Your task to perform on an android device: Set the phone to "Do not disturb". Image 0: 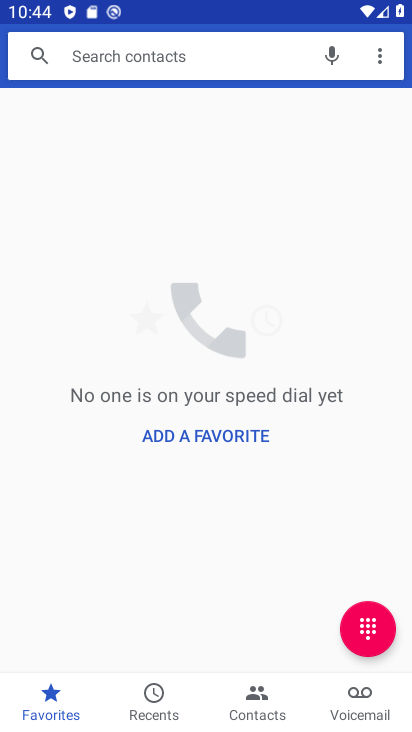
Step 0: press home button
Your task to perform on an android device: Set the phone to "Do not disturb". Image 1: 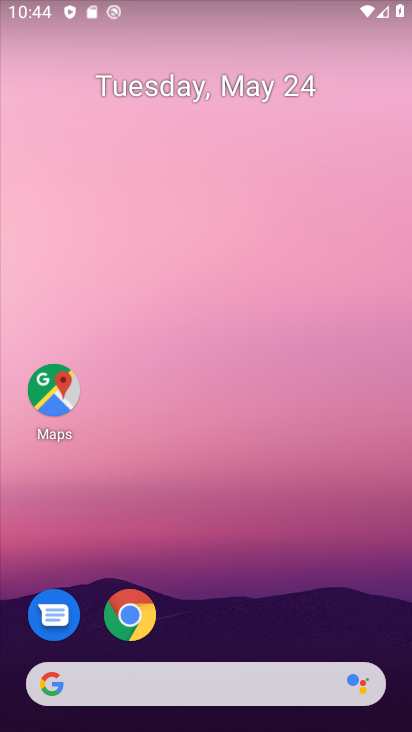
Step 1: drag from (217, 705) to (269, 151)
Your task to perform on an android device: Set the phone to "Do not disturb". Image 2: 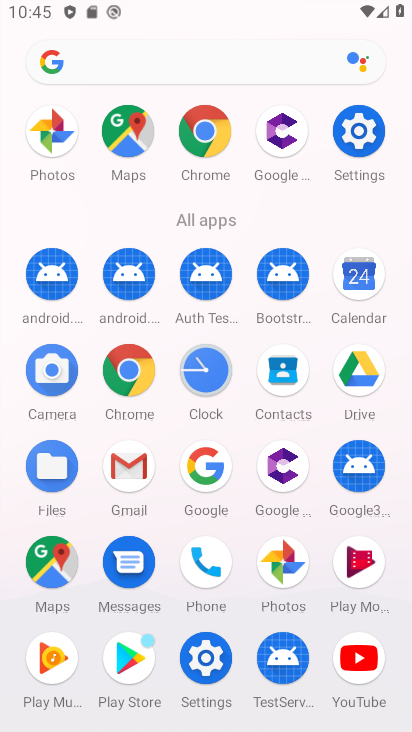
Step 2: click (359, 138)
Your task to perform on an android device: Set the phone to "Do not disturb". Image 3: 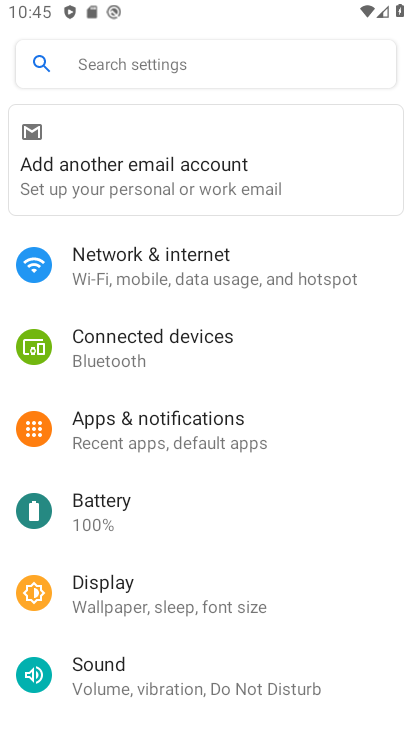
Step 3: click (112, 77)
Your task to perform on an android device: Set the phone to "Do not disturb". Image 4: 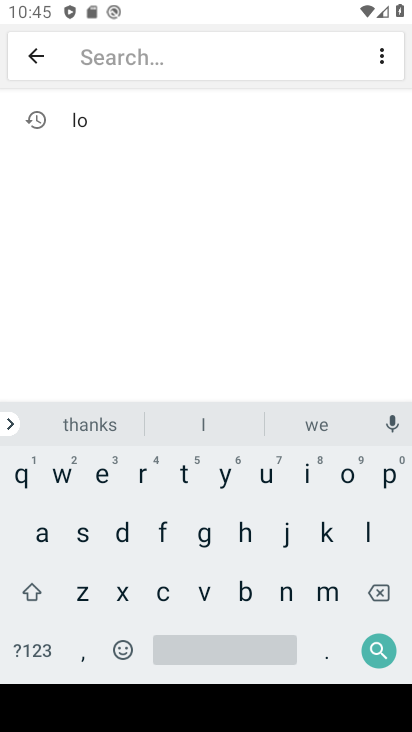
Step 4: click (119, 533)
Your task to perform on an android device: Set the phone to "Do not disturb". Image 5: 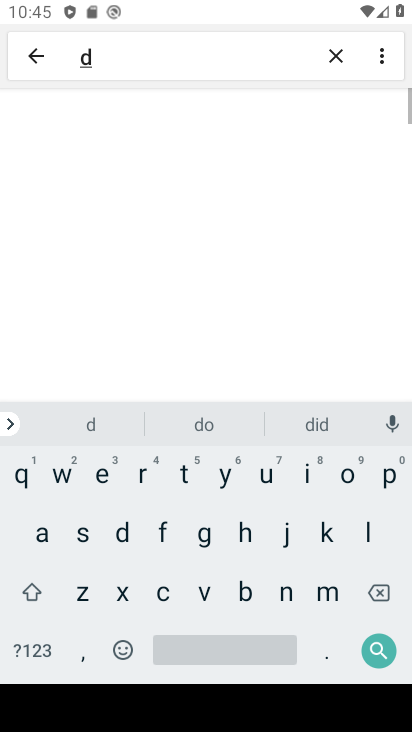
Step 5: click (289, 593)
Your task to perform on an android device: Set the phone to "Do not disturb". Image 6: 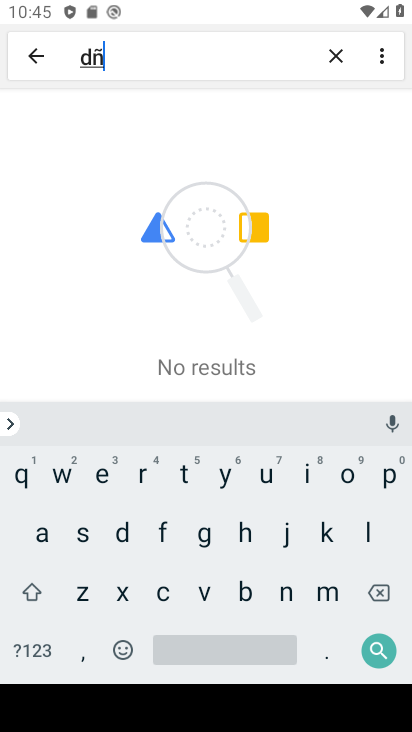
Step 6: click (379, 594)
Your task to perform on an android device: Set the phone to "Do not disturb". Image 7: 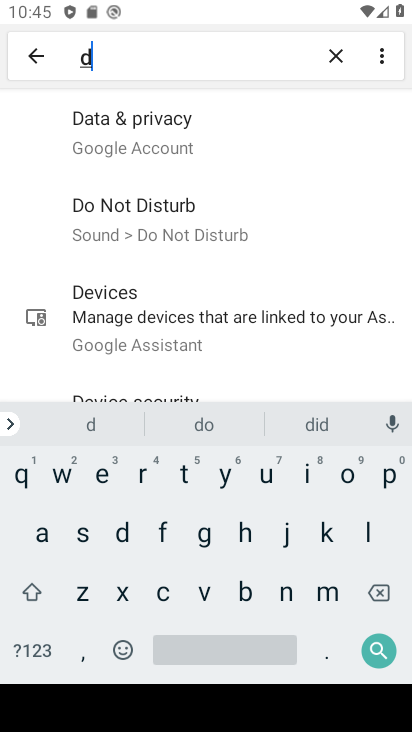
Step 7: click (175, 207)
Your task to perform on an android device: Set the phone to "Do not disturb". Image 8: 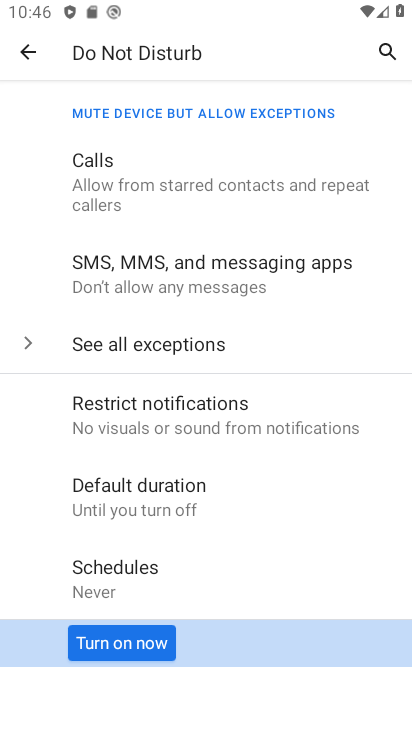
Step 8: click (141, 642)
Your task to perform on an android device: Set the phone to "Do not disturb". Image 9: 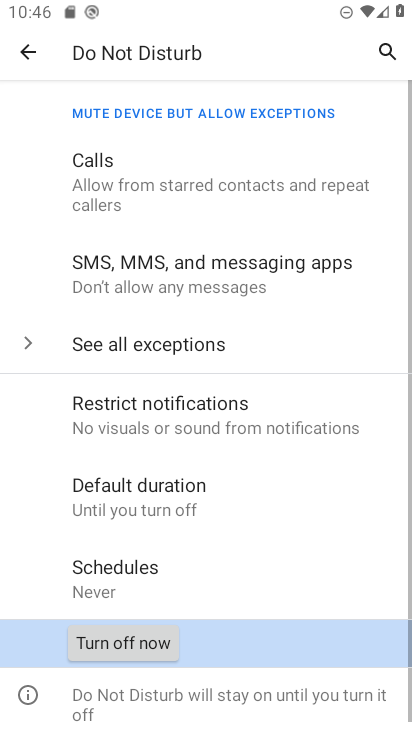
Step 9: task complete